Your task to perform on an android device: turn on sleep mode Image 0: 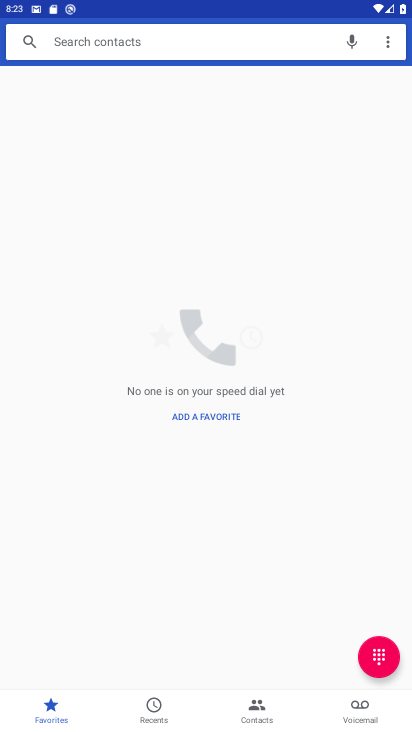
Step 0: press home button
Your task to perform on an android device: turn on sleep mode Image 1: 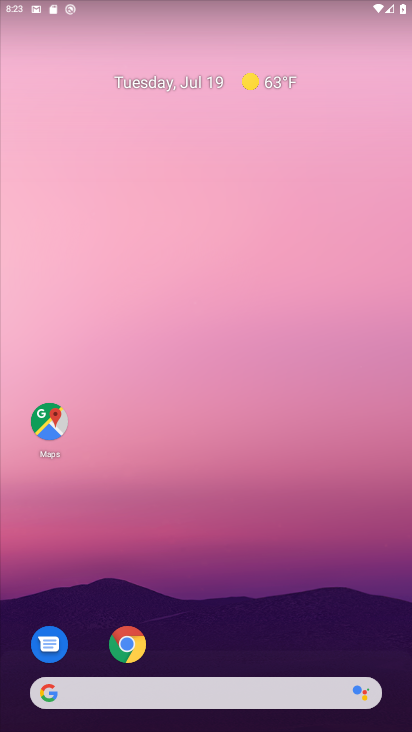
Step 1: drag from (167, 684) to (281, 3)
Your task to perform on an android device: turn on sleep mode Image 2: 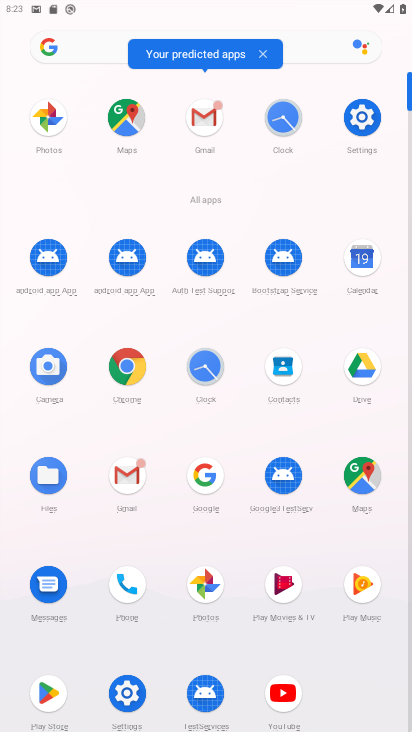
Step 2: click (359, 125)
Your task to perform on an android device: turn on sleep mode Image 3: 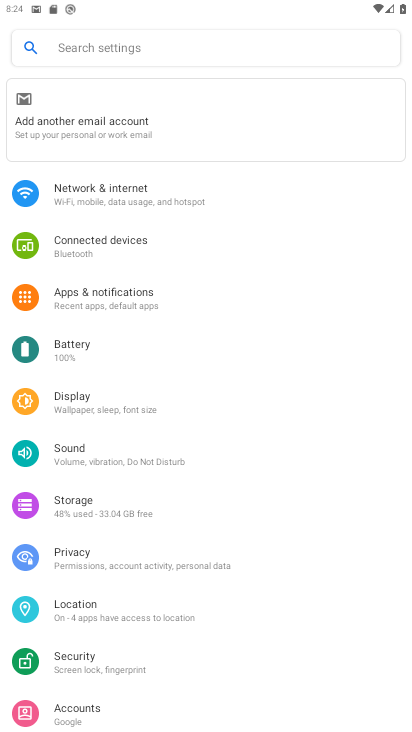
Step 3: click (136, 409)
Your task to perform on an android device: turn on sleep mode Image 4: 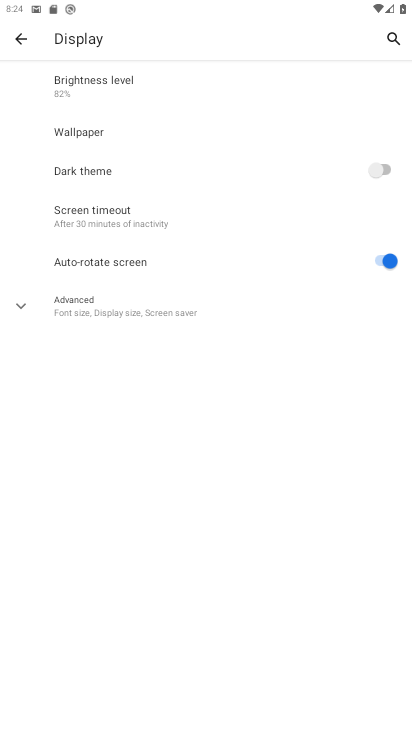
Step 4: click (111, 212)
Your task to perform on an android device: turn on sleep mode Image 5: 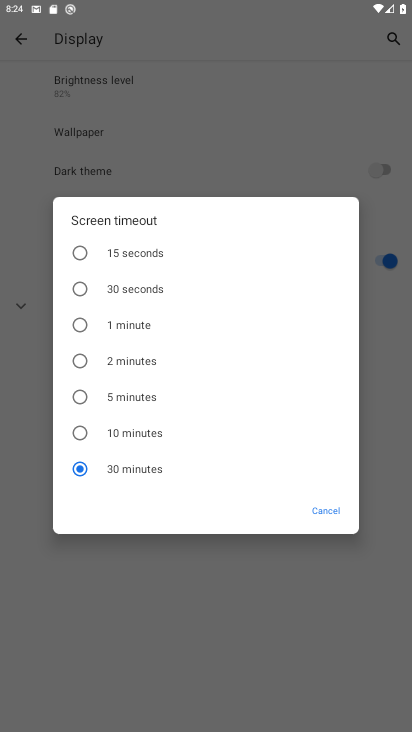
Step 5: click (325, 509)
Your task to perform on an android device: turn on sleep mode Image 6: 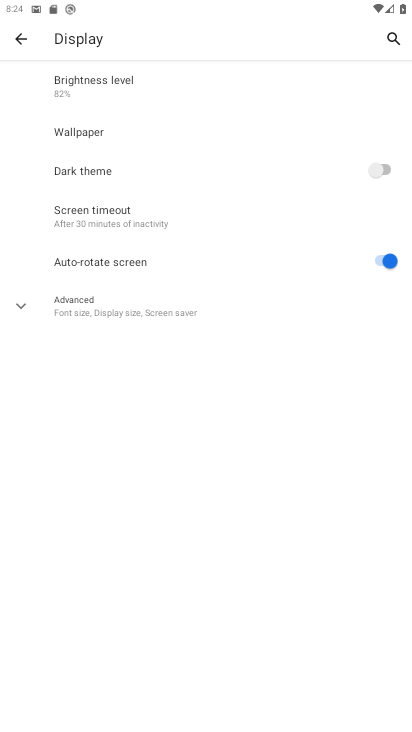
Step 6: click (128, 316)
Your task to perform on an android device: turn on sleep mode Image 7: 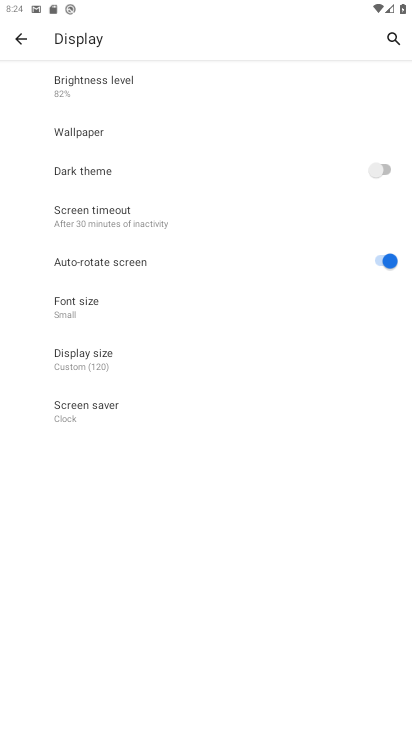
Step 7: click (77, 404)
Your task to perform on an android device: turn on sleep mode Image 8: 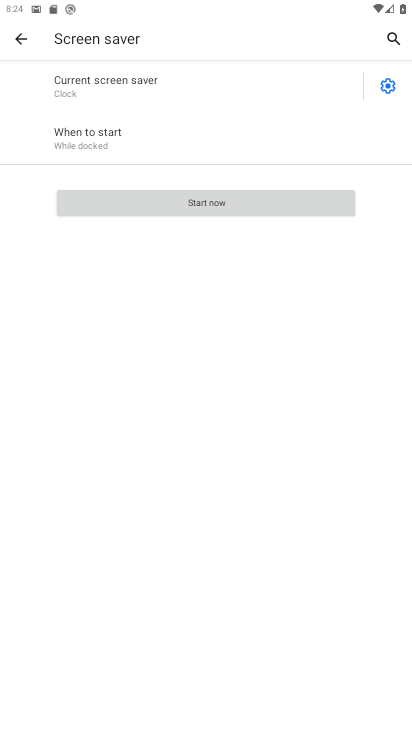
Step 8: task complete